Your task to perform on an android device: open a new tab in the chrome app Image 0: 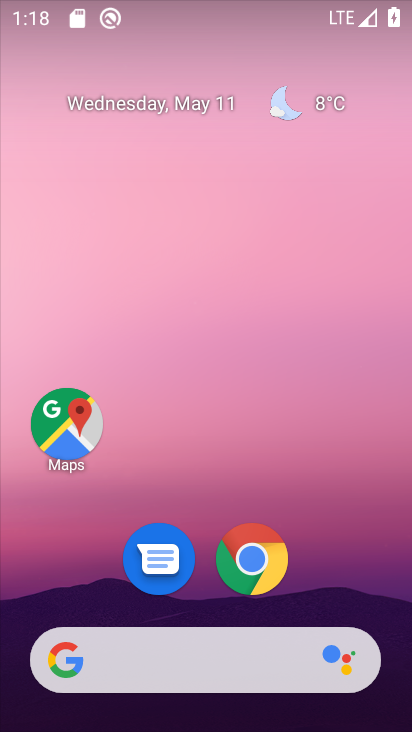
Step 0: click (249, 561)
Your task to perform on an android device: open a new tab in the chrome app Image 1: 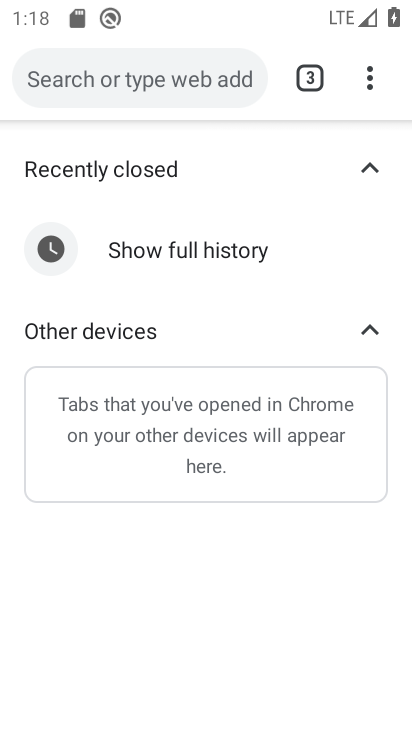
Step 1: click (373, 90)
Your task to perform on an android device: open a new tab in the chrome app Image 2: 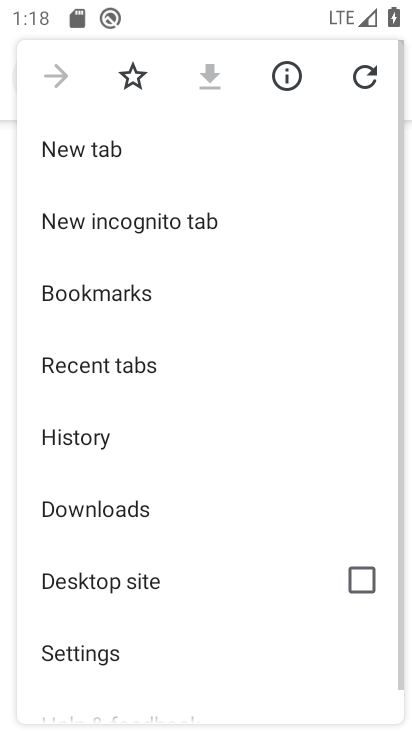
Step 2: click (96, 151)
Your task to perform on an android device: open a new tab in the chrome app Image 3: 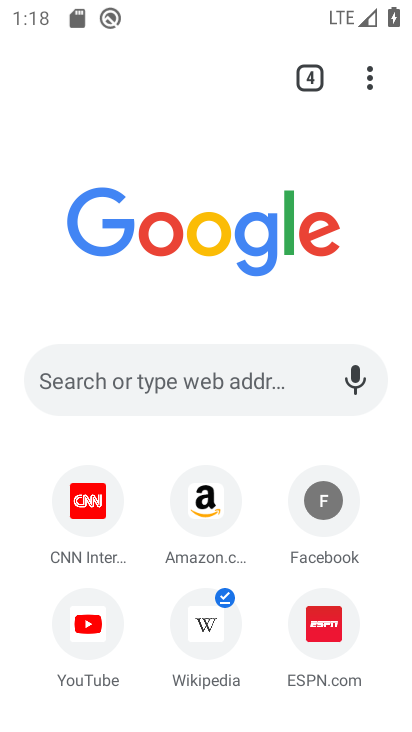
Step 3: task complete